Your task to perform on an android device: Search for the best Nike running shoes on Nike.com Image 0: 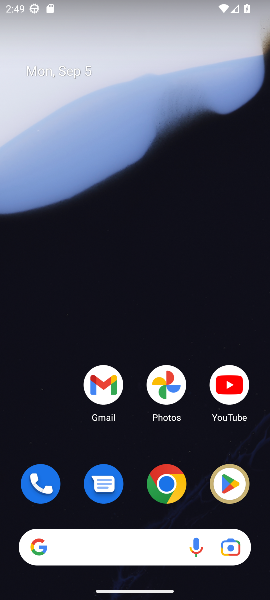
Step 0: click (168, 487)
Your task to perform on an android device: Search for the best Nike running shoes on Nike.com Image 1: 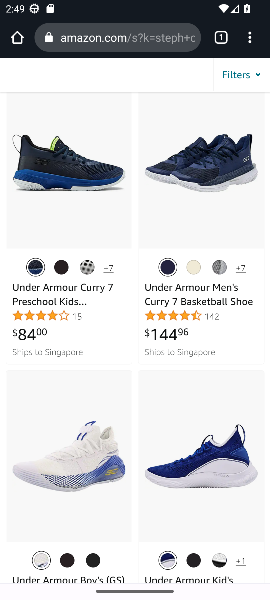
Step 1: click (146, 38)
Your task to perform on an android device: Search for the best Nike running shoes on Nike.com Image 2: 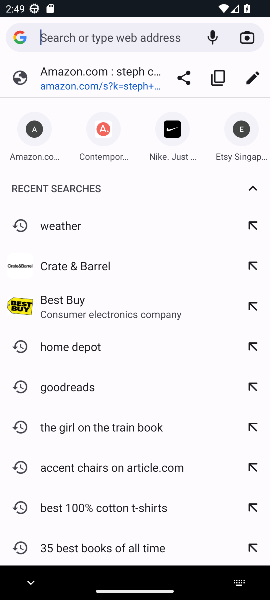
Step 2: type " Nike.com"
Your task to perform on an android device: Search for the best Nike running shoes on Nike.com Image 3: 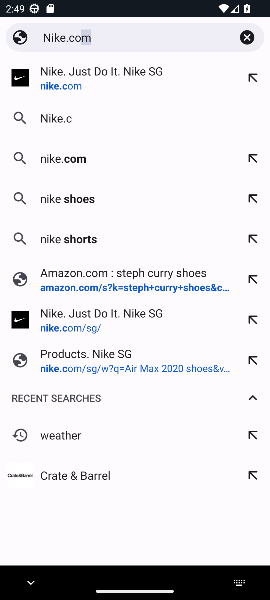
Step 3: press enter
Your task to perform on an android device: Search for the best Nike running shoes on Nike.com Image 4: 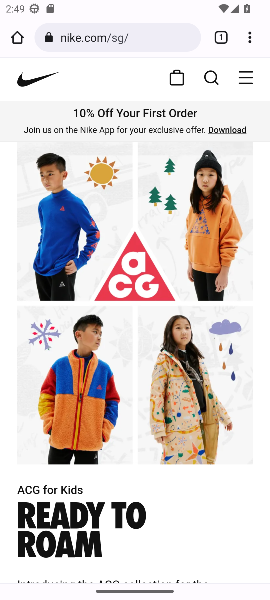
Step 4: click (203, 71)
Your task to perform on an android device: Search for the best Nike running shoes on Nike.com Image 5: 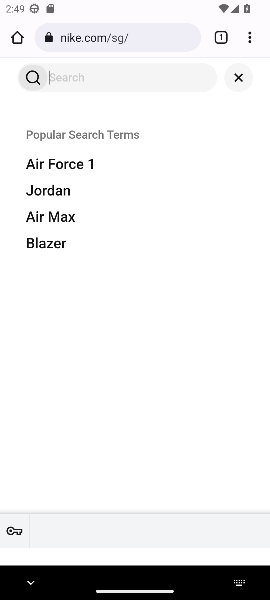
Step 5: click (100, 77)
Your task to perform on an android device: Search for the best Nike running shoes on Nike.com Image 6: 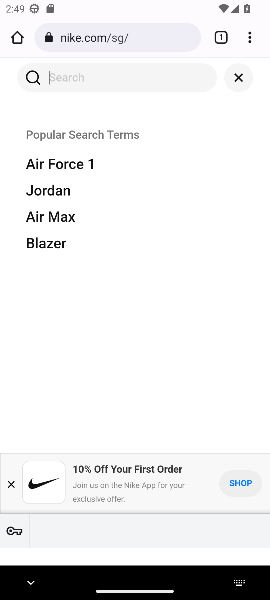
Step 6: type "running shoes"
Your task to perform on an android device: Search for the best Nike running shoes on Nike.com Image 7: 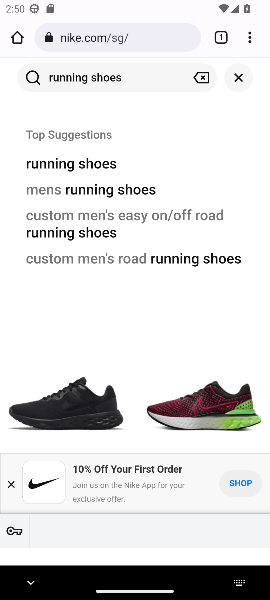
Step 7: task complete